Your task to perform on an android device: add a contact in the contacts app Image 0: 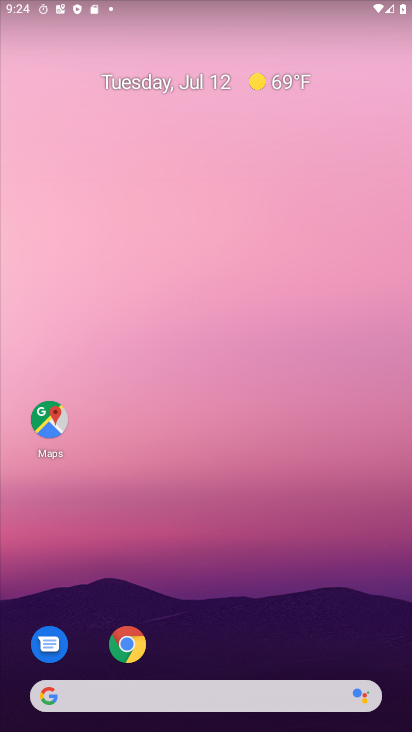
Step 0: press home button
Your task to perform on an android device: add a contact in the contacts app Image 1: 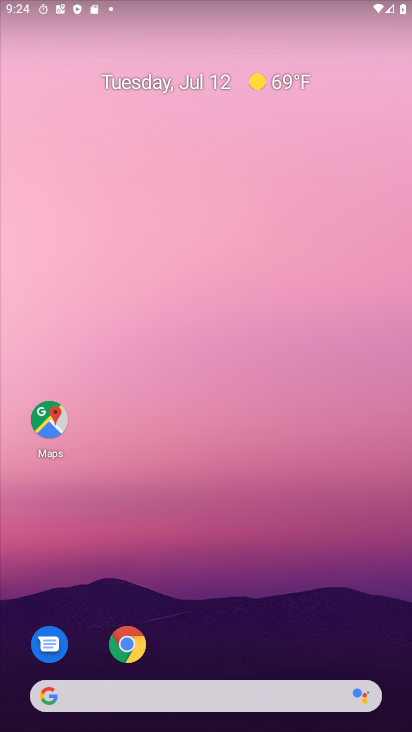
Step 1: drag from (213, 648) to (226, 49)
Your task to perform on an android device: add a contact in the contacts app Image 2: 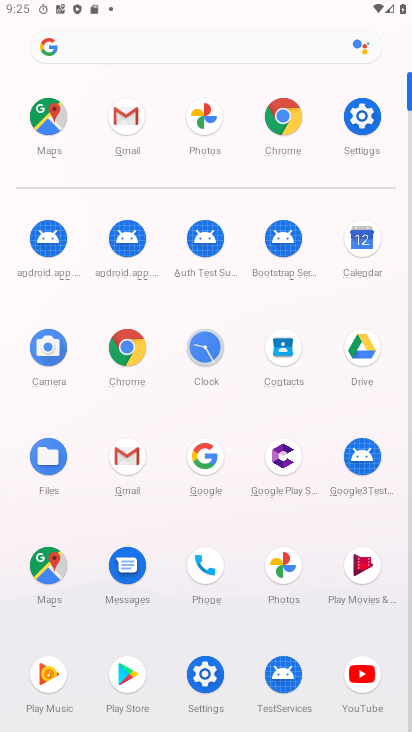
Step 2: click (280, 338)
Your task to perform on an android device: add a contact in the contacts app Image 3: 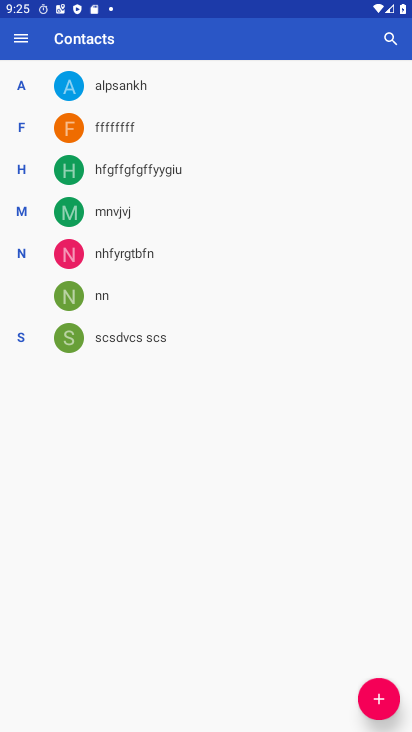
Step 3: click (378, 697)
Your task to perform on an android device: add a contact in the contacts app Image 4: 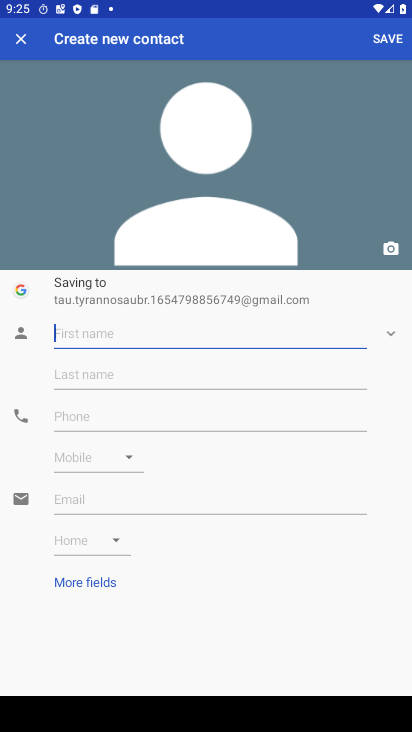
Step 4: type "fhgdgfd"
Your task to perform on an android device: add a contact in the contacts app Image 5: 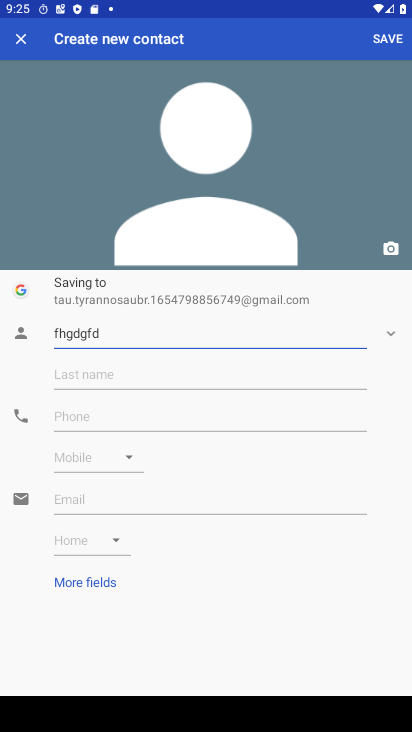
Step 5: click (385, 36)
Your task to perform on an android device: add a contact in the contacts app Image 6: 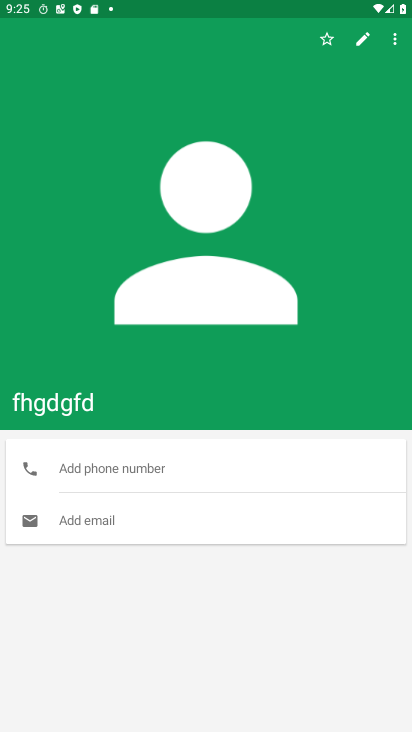
Step 6: task complete